Your task to perform on an android device: turn on airplane mode Image 0: 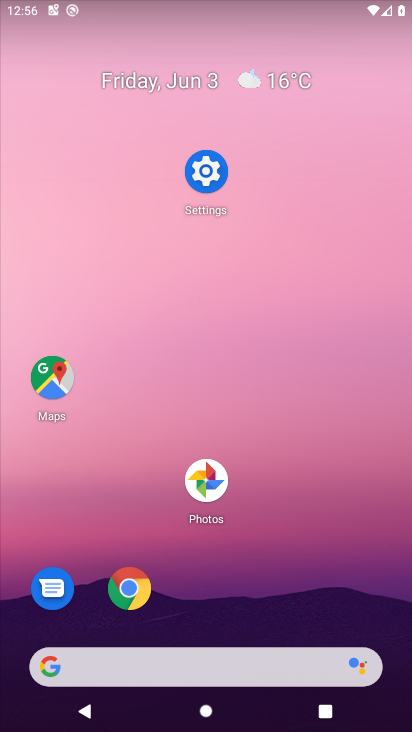
Step 0: drag from (179, 547) to (162, 109)
Your task to perform on an android device: turn on airplane mode Image 1: 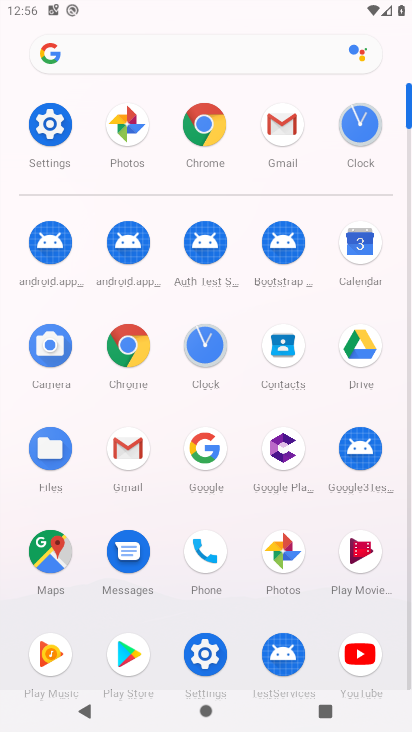
Step 1: click (47, 127)
Your task to perform on an android device: turn on airplane mode Image 2: 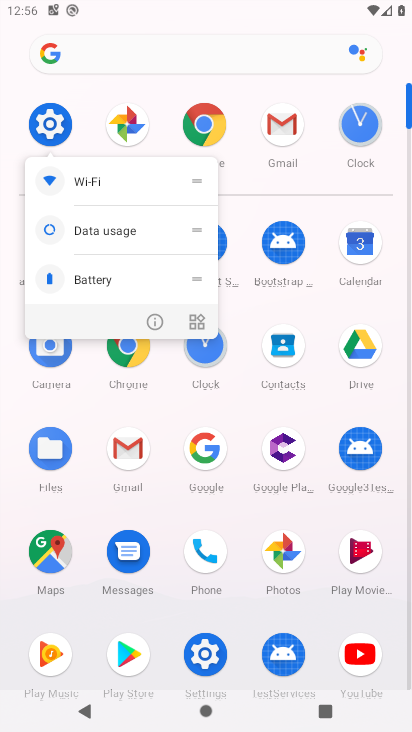
Step 2: click (153, 329)
Your task to perform on an android device: turn on airplane mode Image 3: 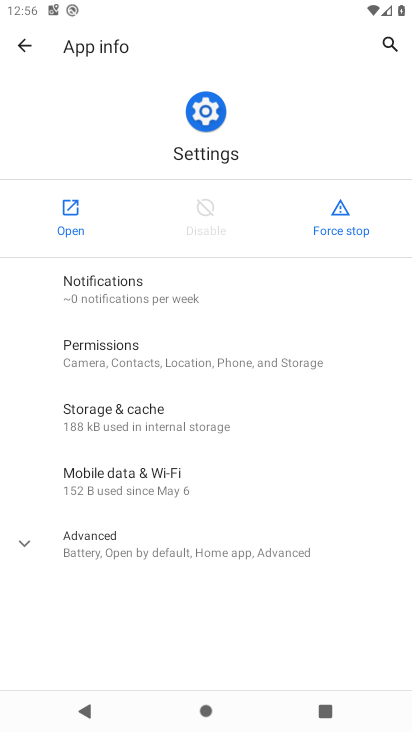
Step 3: click (67, 204)
Your task to perform on an android device: turn on airplane mode Image 4: 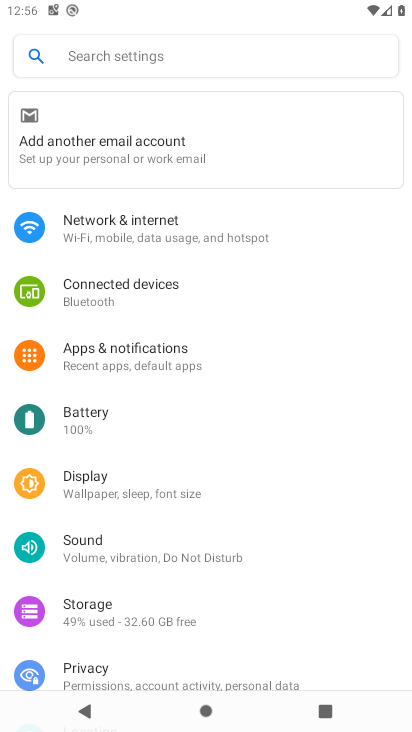
Step 4: click (159, 206)
Your task to perform on an android device: turn on airplane mode Image 5: 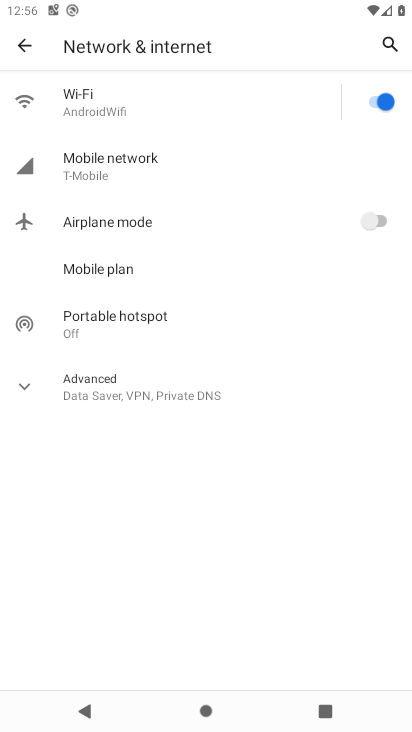
Step 5: drag from (211, 386) to (203, 215)
Your task to perform on an android device: turn on airplane mode Image 6: 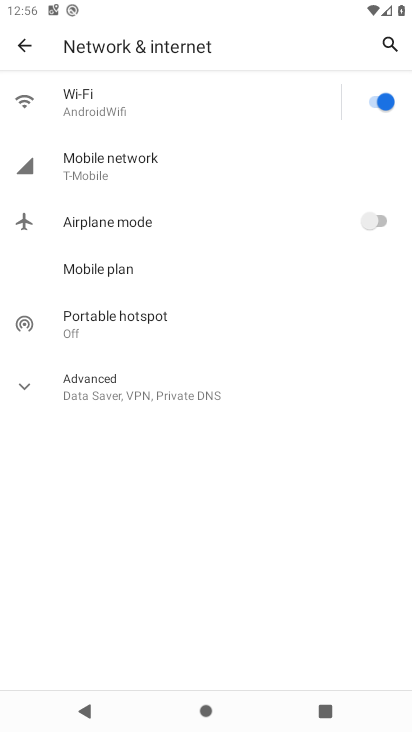
Step 6: click (182, 225)
Your task to perform on an android device: turn on airplane mode Image 7: 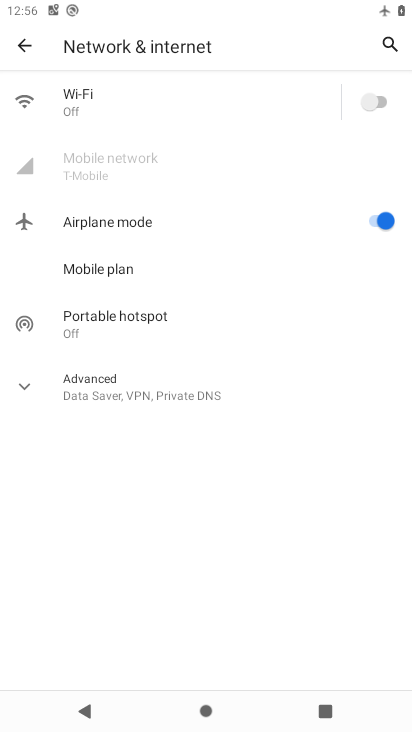
Step 7: task complete